Your task to perform on an android device: Show me popular videos on Youtube Image 0: 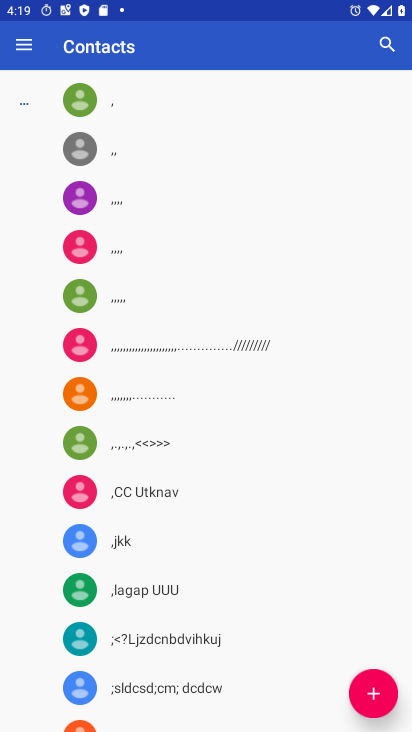
Step 0: press home button
Your task to perform on an android device: Show me popular videos on Youtube Image 1: 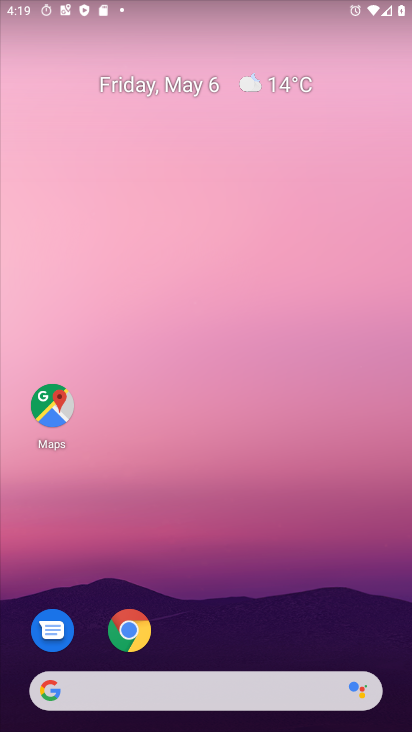
Step 1: drag from (169, 656) to (277, 97)
Your task to perform on an android device: Show me popular videos on Youtube Image 2: 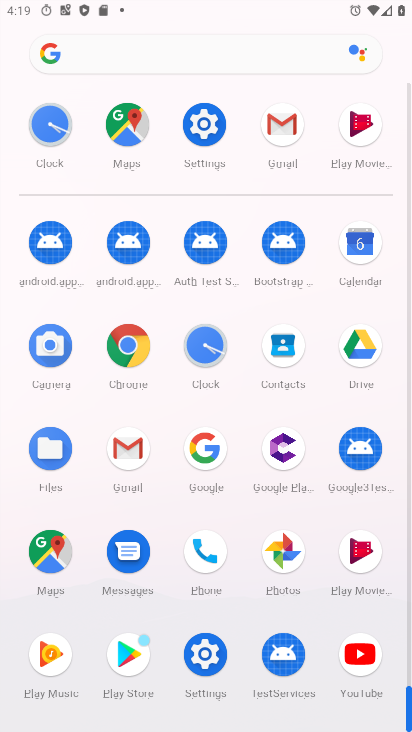
Step 2: click (370, 661)
Your task to perform on an android device: Show me popular videos on Youtube Image 3: 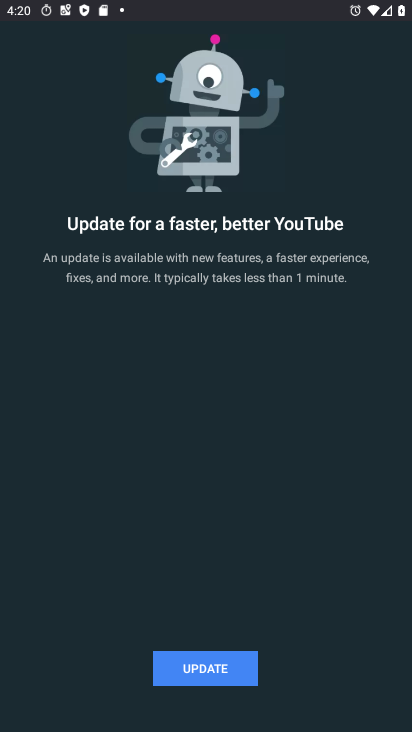
Step 3: click (219, 658)
Your task to perform on an android device: Show me popular videos on Youtube Image 4: 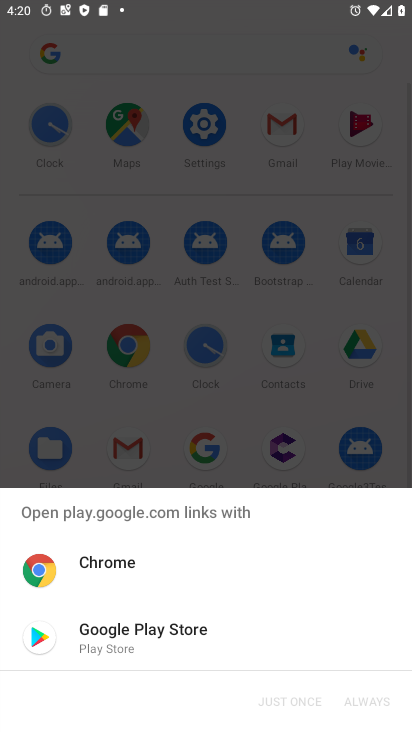
Step 4: click (219, 658)
Your task to perform on an android device: Show me popular videos on Youtube Image 5: 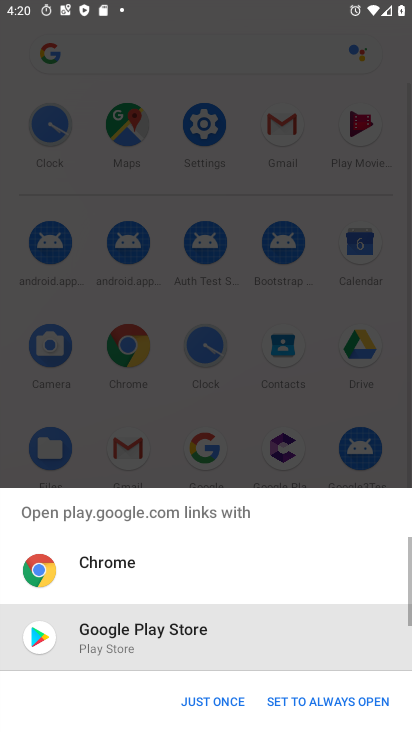
Step 5: click (213, 705)
Your task to perform on an android device: Show me popular videos on Youtube Image 6: 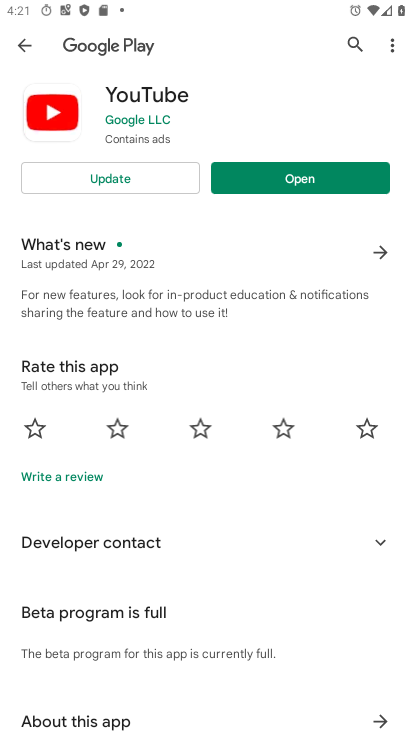
Step 6: click (284, 181)
Your task to perform on an android device: Show me popular videos on Youtube Image 7: 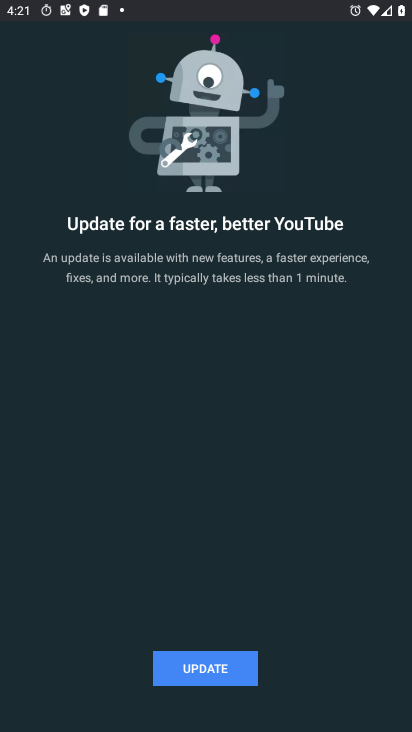
Step 7: click (205, 677)
Your task to perform on an android device: Show me popular videos on Youtube Image 8: 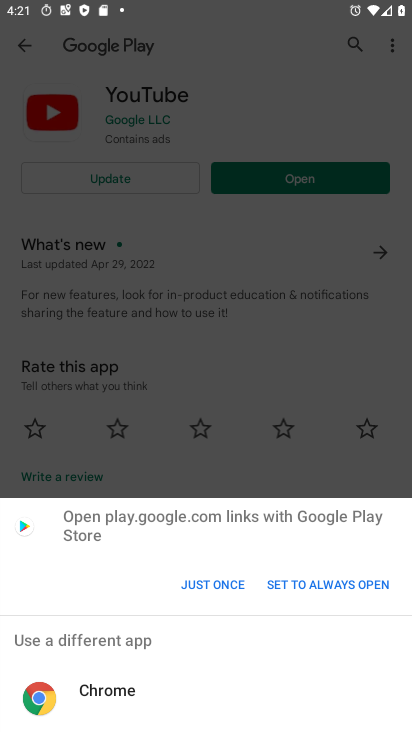
Step 8: click (231, 582)
Your task to perform on an android device: Show me popular videos on Youtube Image 9: 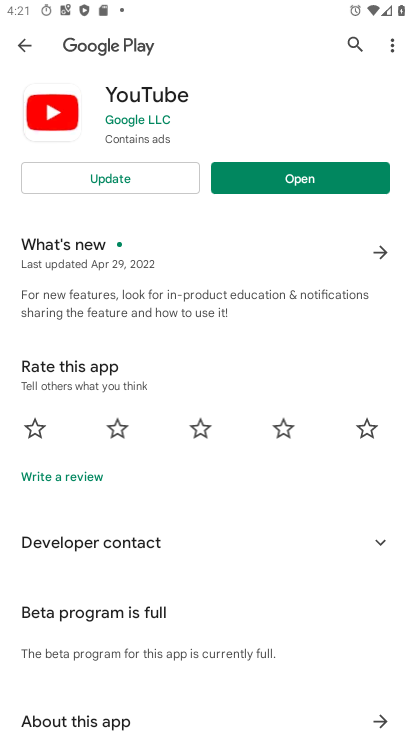
Step 9: click (166, 171)
Your task to perform on an android device: Show me popular videos on Youtube Image 10: 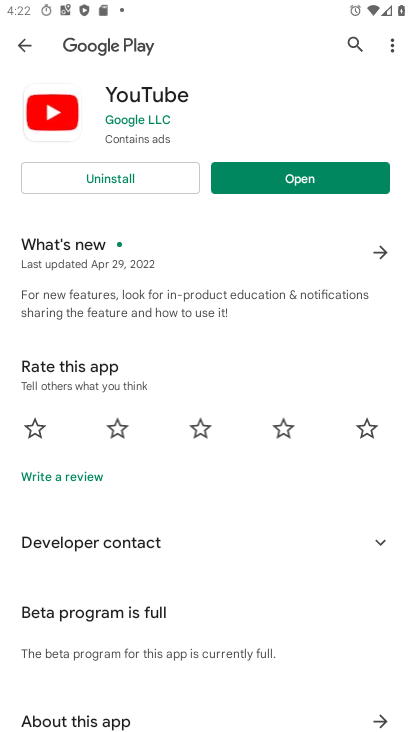
Step 10: click (270, 183)
Your task to perform on an android device: Show me popular videos on Youtube Image 11: 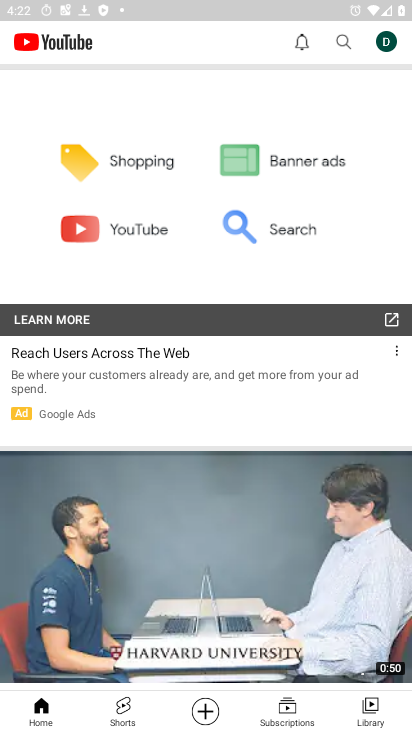
Step 11: click (69, 82)
Your task to perform on an android device: Show me popular videos on Youtube Image 12: 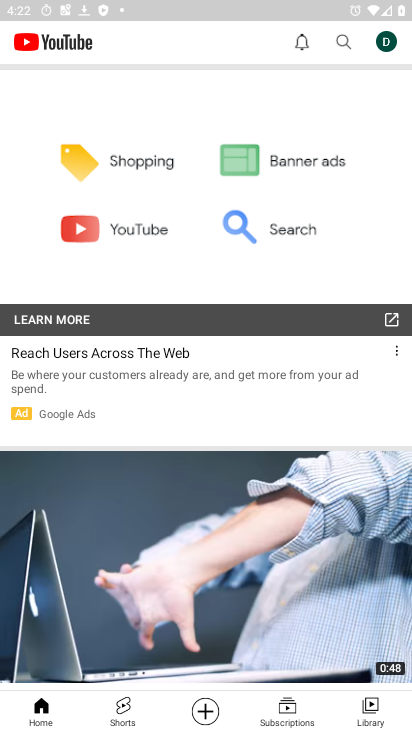
Step 12: drag from (69, 82) to (152, 536)
Your task to perform on an android device: Show me popular videos on Youtube Image 13: 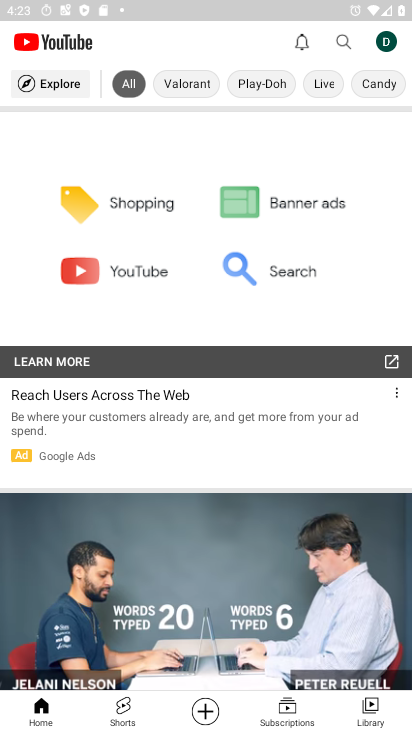
Step 13: click (66, 80)
Your task to perform on an android device: Show me popular videos on Youtube Image 14: 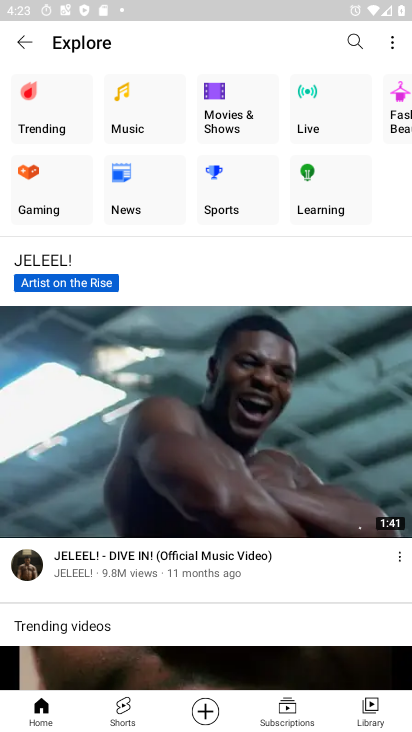
Step 14: click (49, 106)
Your task to perform on an android device: Show me popular videos on Youtube Image 15: 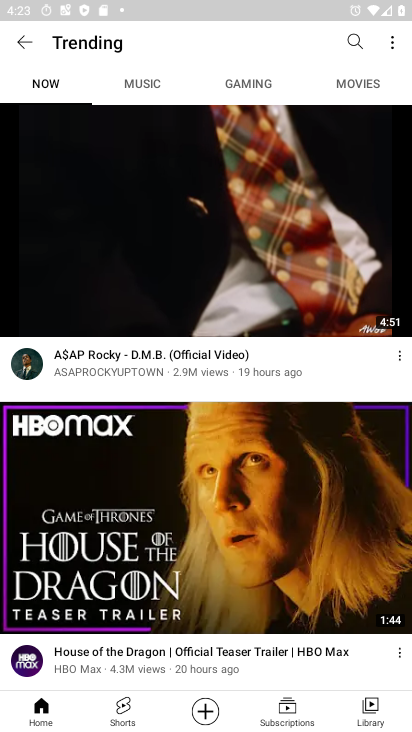
Step 15: task complete